Your task to perform on an android device: show emergency info Image 0: 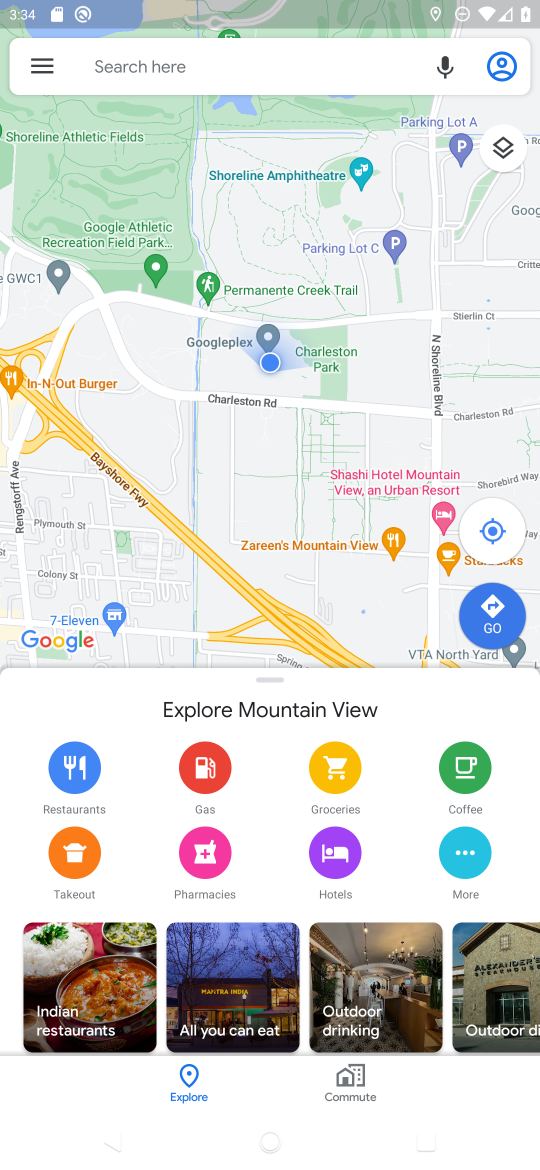
Step 0: press home button
Your task to perform on an android device: show emergency info Image 1: 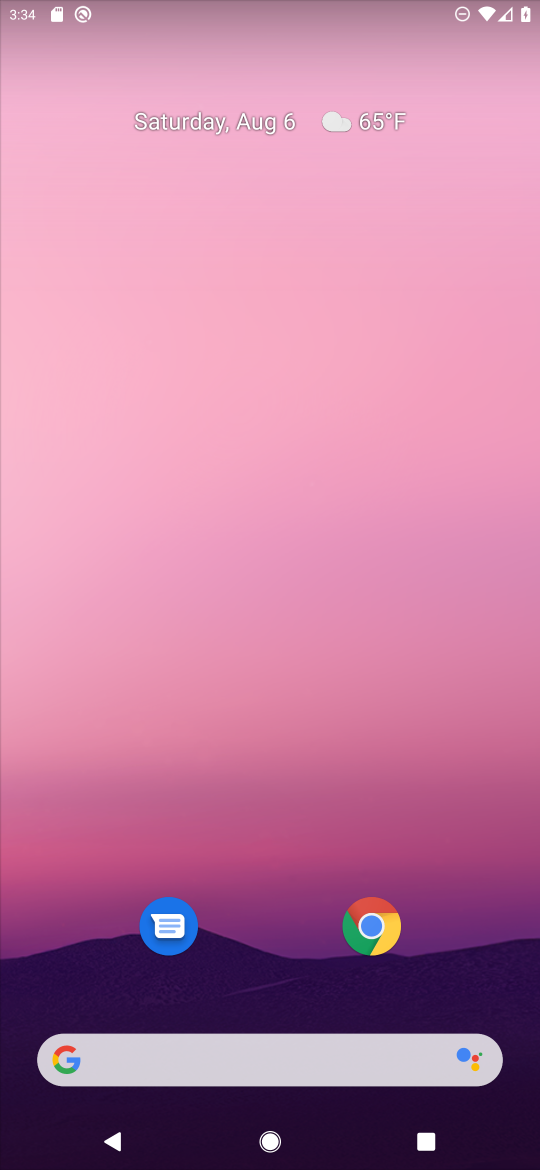
Step 1: drag from (242, 938) to (313, 330)
Your task to perform on an android device: show emergency info Image 2: 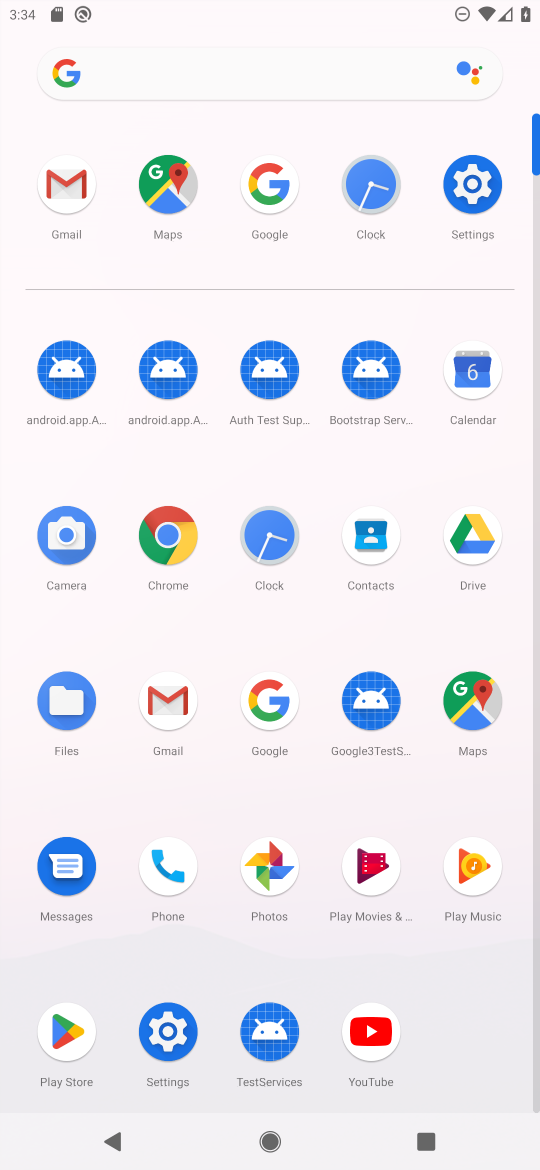
Step 2: click (462, 187)
Your task to perform on an android device: show emergency info Image 3: 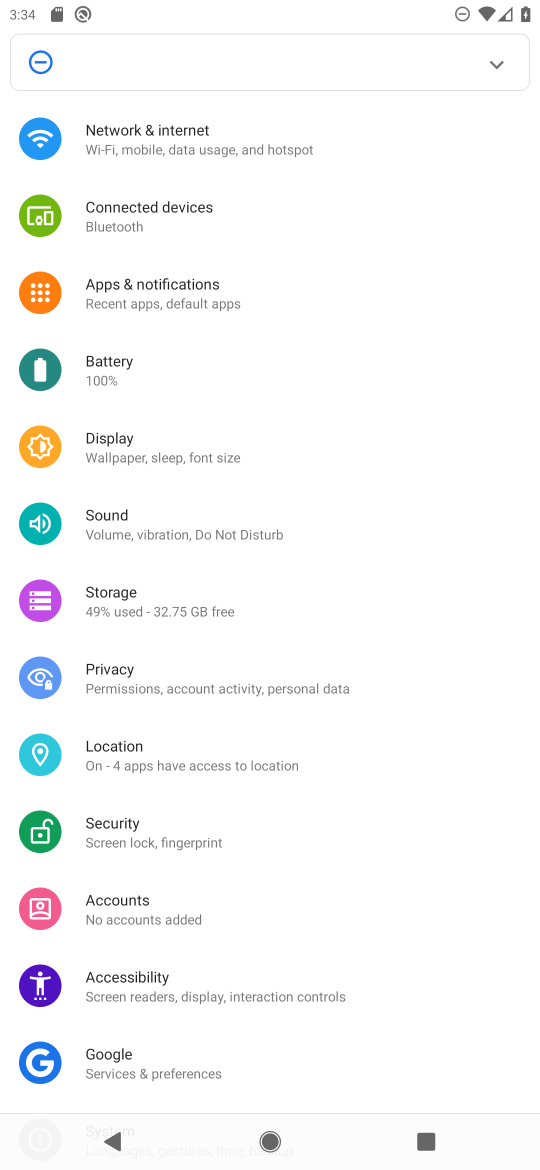
Step 3: drag from (174, 1045) to (212, 430)
Your task to perform on an android device: show emergency info Image 4: 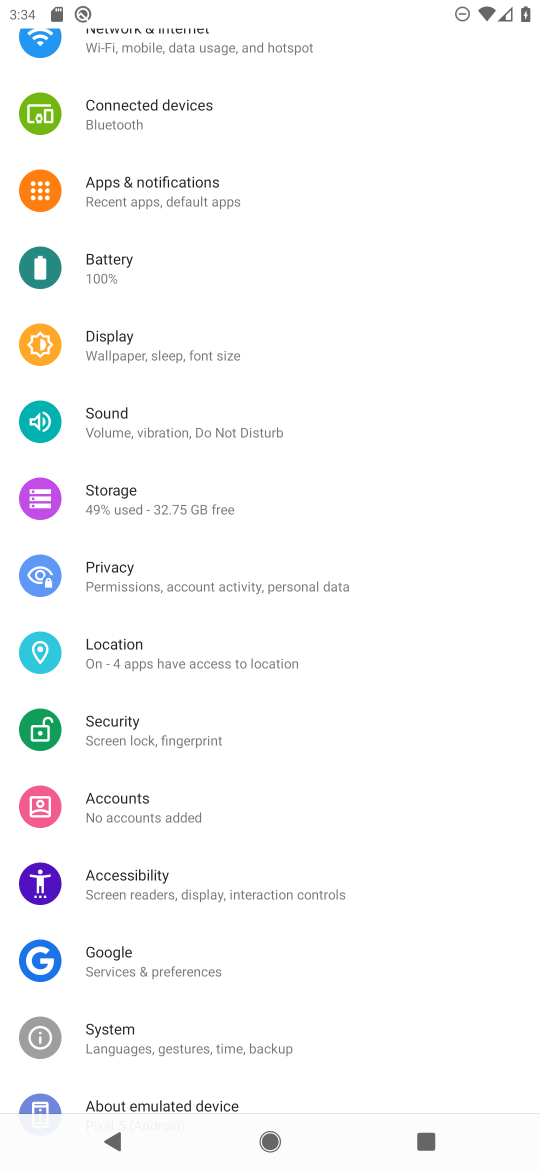
Step 4: drag from (210, 1074) to (275, 401)
Your task to perform on an android device: show emergency info Image 5: 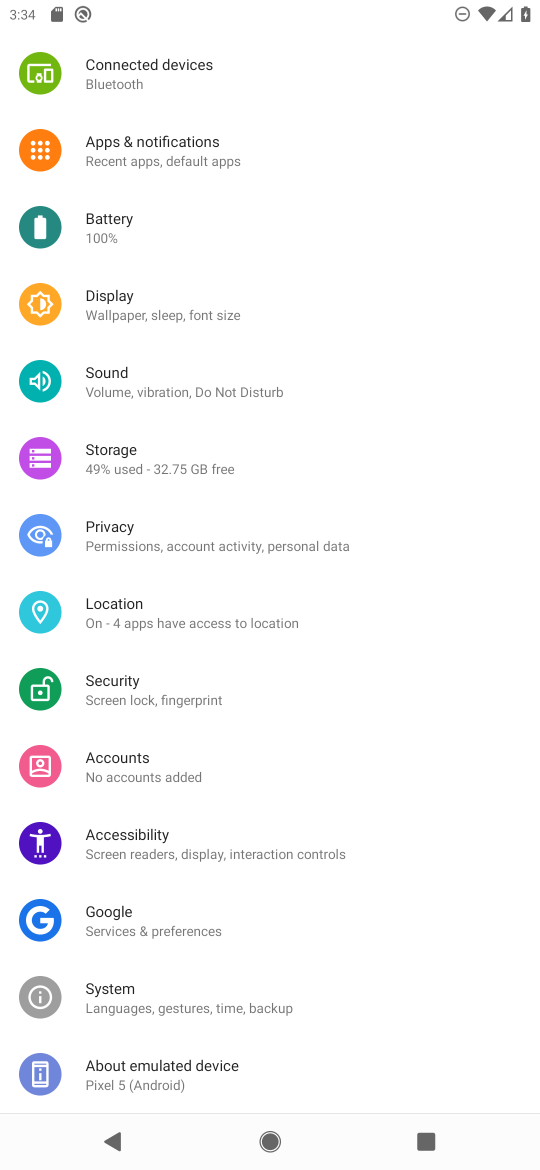
Step 5: click (181, 1080)
Your task to perform on an android device: show emergency info Image 6: 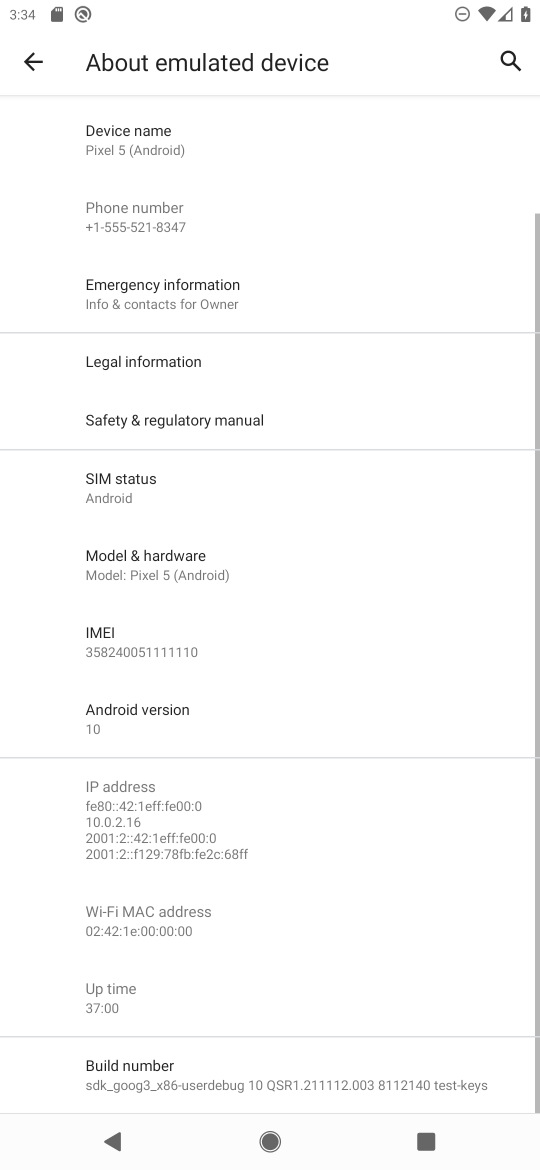
Step 6: click (175, 275)
Your task to perform on an android device: show emergency info Image 7: 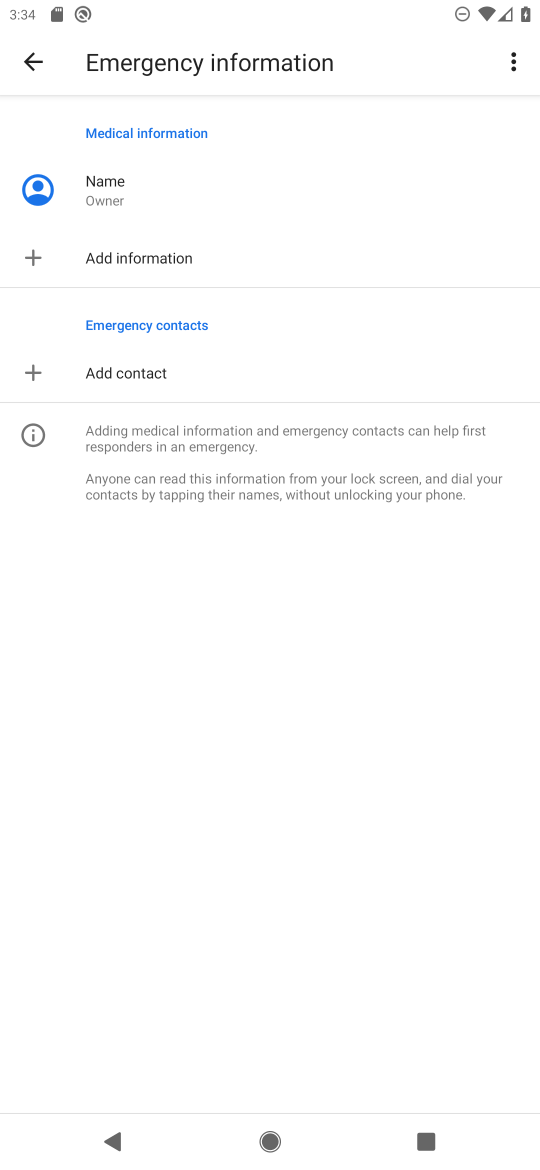
Step 7: task complete